Your task to perform on an android device: allow notifications from all sites in the chrome app Image 0: 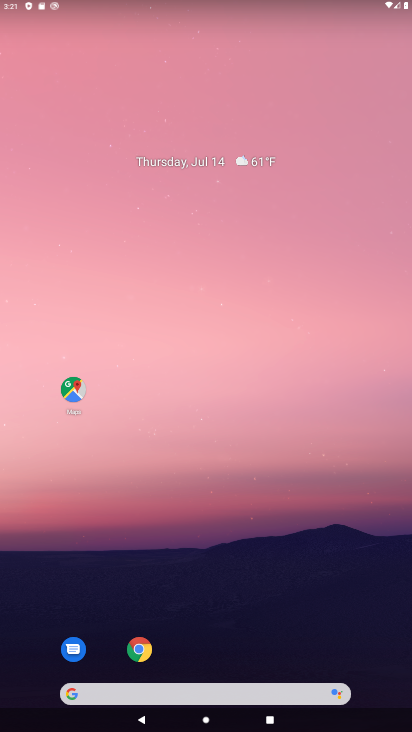
Step 0: drag from (215, 661) to (221, 184)
Your task to perform on an android device: allow notifications from all sites in the chrome app Image 1: 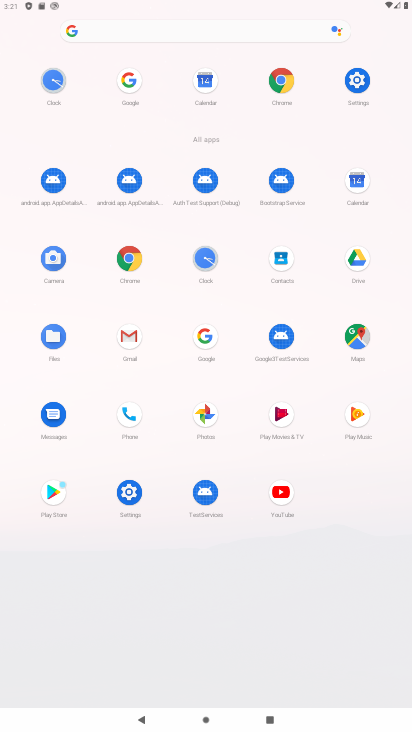
Step 1: click (135, 271)
Your task to perform on an android device: allow notifications from all sites in the chrome app Image 2: 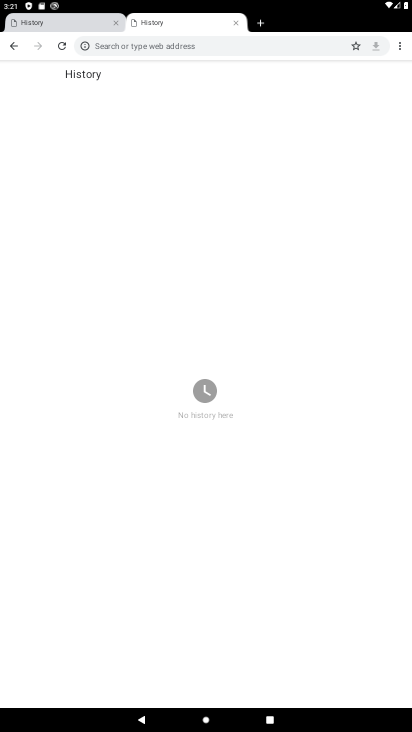
Step 2: drag from (403, 45) to (289, 208)
Your task to perform on an android device: allow notifications from all sites in the chrome app Image 3: 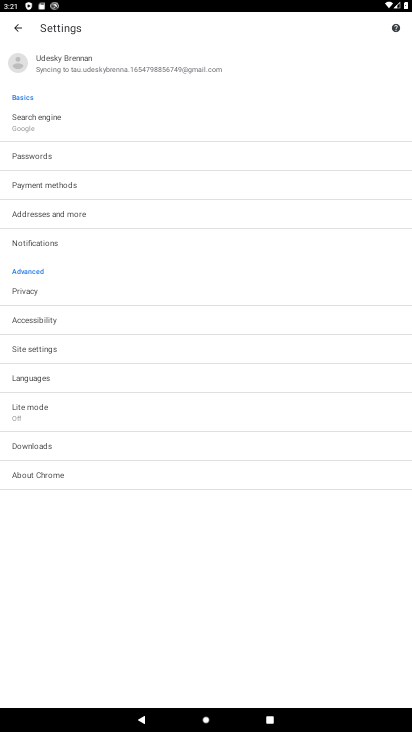
Step 3: click (29, 353)
Your task to perform on an android device: allow notifications from all sites in the chrome app Image 4: 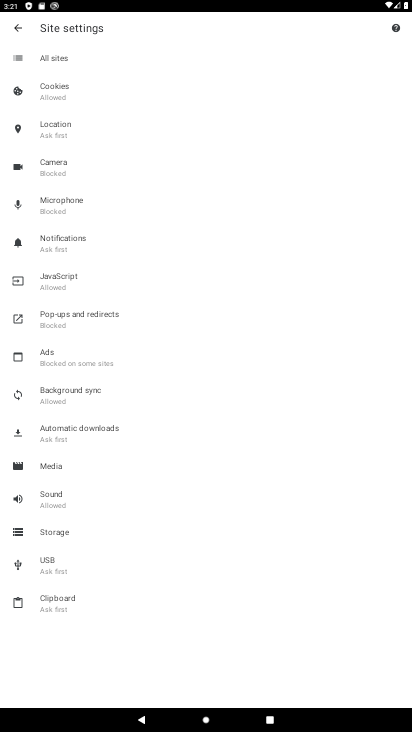
Step 4: click (89, 238)
Your task to perform on an android device: allow notifications from all sites in the chrome app Image 5: 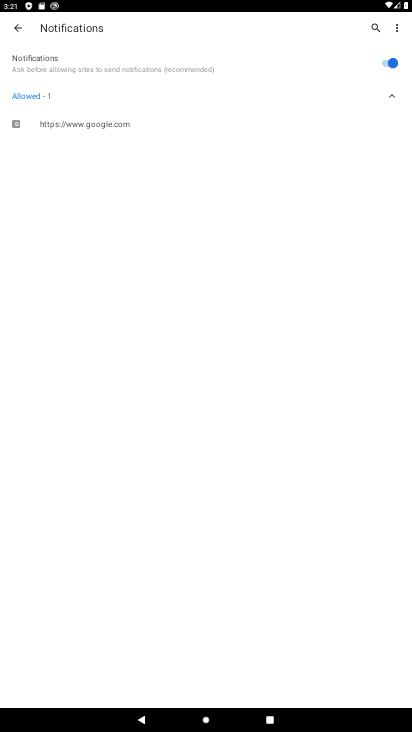
Step 5: task complete